Your task to perform on an android device: Go to Amazon Image 0: 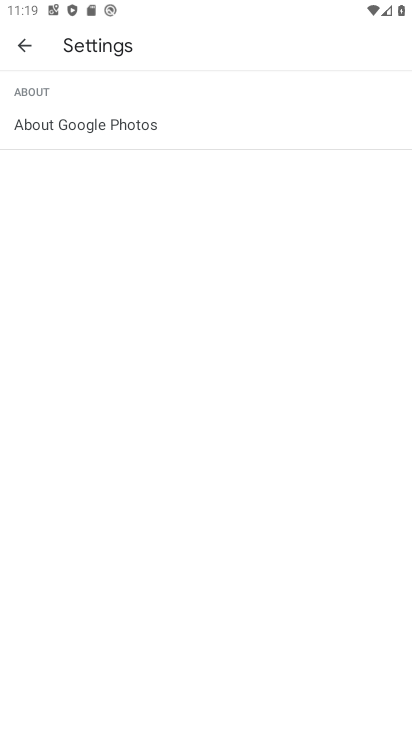
Step 0: click (23, 46)
Your task to perform on an android device: Go to Amazon Image 1: 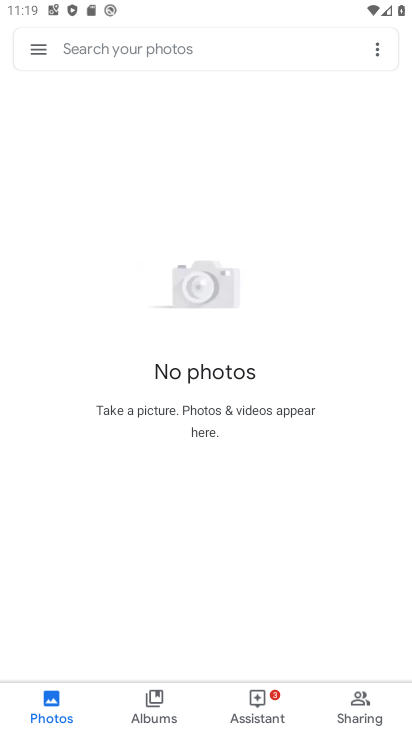
Step 1: press back button
Your task to perform on an android device: Go to Amazon Image 2: 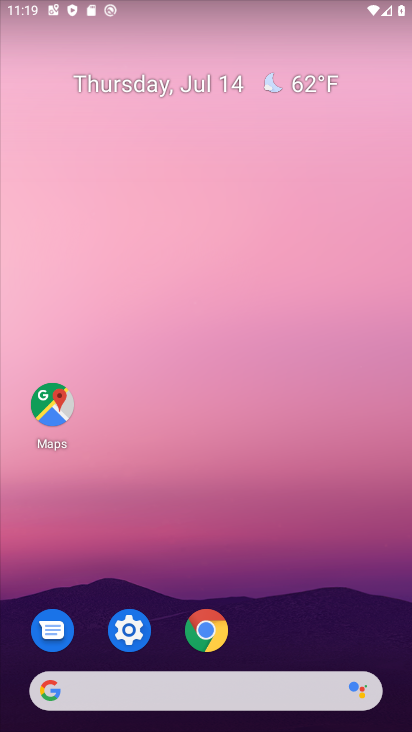
Step 2: drag from (265, 615) to (123, 105)
Your task to perform on an android device: Go to Amazon Image 3: 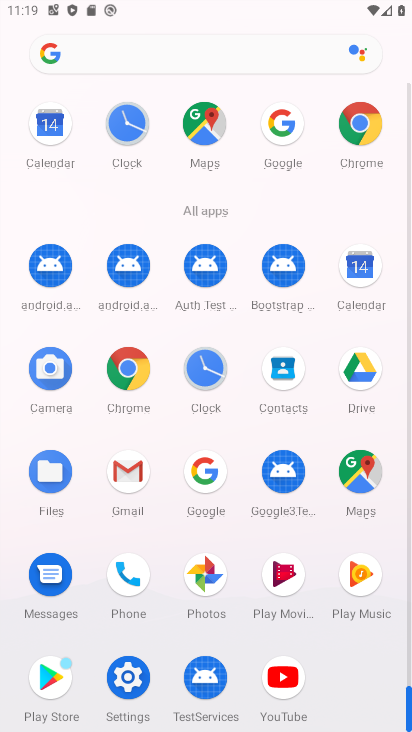
Step 3: click (358, 136)
Your task to perform on an android device: Go to Amazon Image 4: 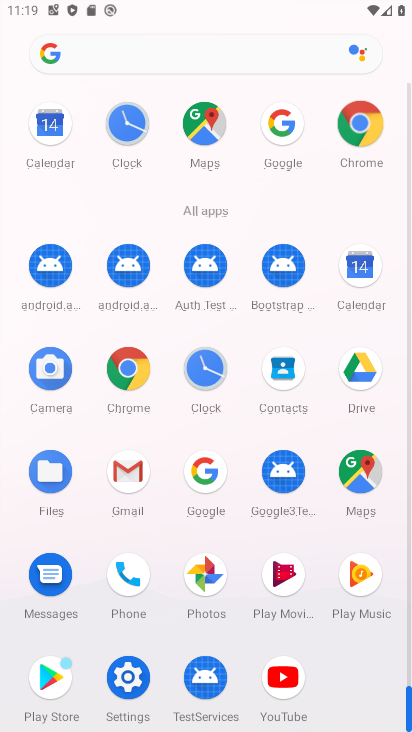
Step 4: click (350, 143)
Your task to perform on an android device: Go to Amazon Image 5: 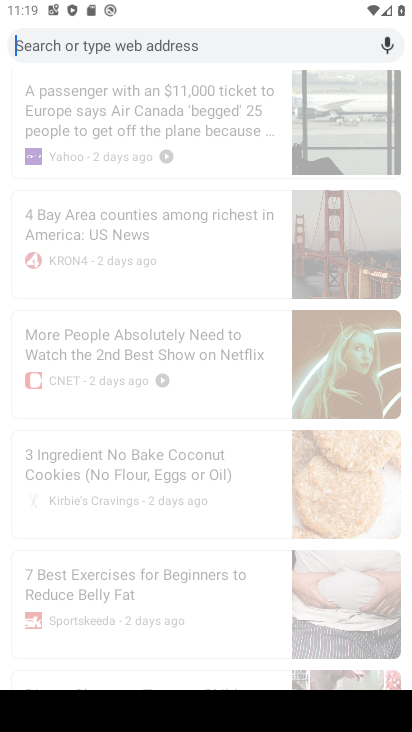
Step 5: press back button
Your task to perform on an android device: Go to Amazon Image 6: 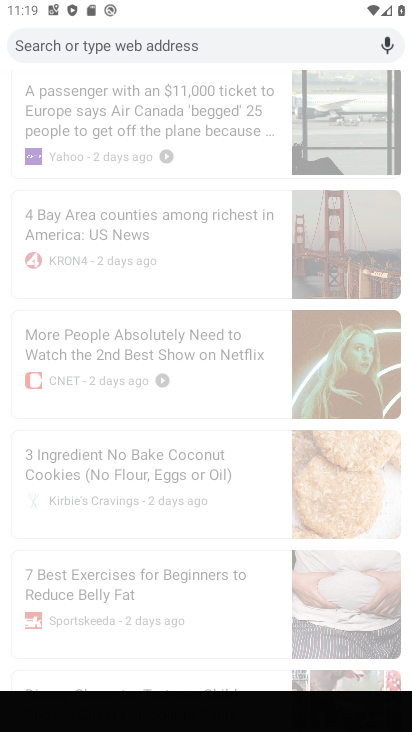
Step 6: press back button
Your task to perform on an android device: Go to Amazon Image 7: 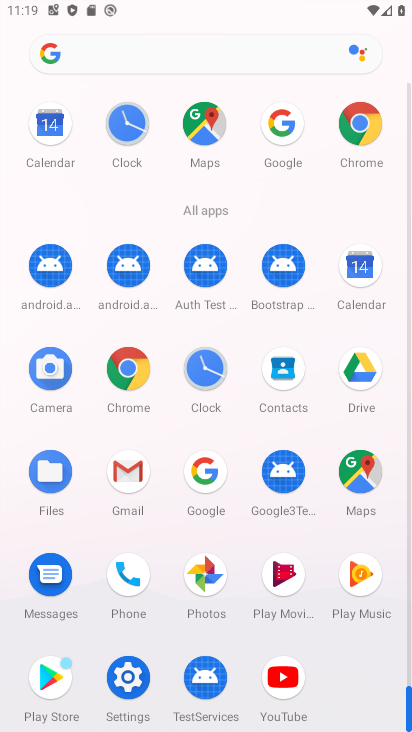
Step 7: drag from (355, 123) to (294, 364)
Your task to perform on an android device: Go to Amazon Image 8: 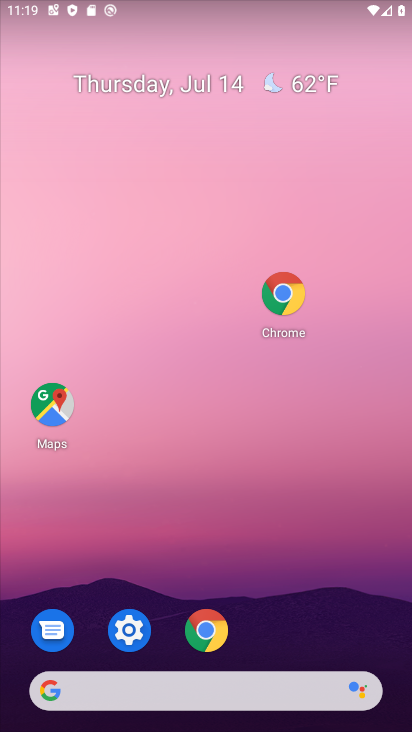
Step 8: click (277, 614)
Your task to perform on an android device: Go to Amazon Image 9: 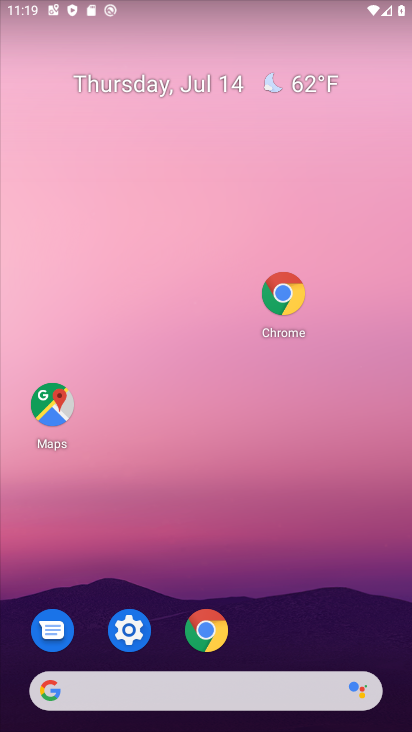
Step 9: drag from (304, 624) to (272, 74)
Your task to perform on an android device: Go to Amazon Image 10: 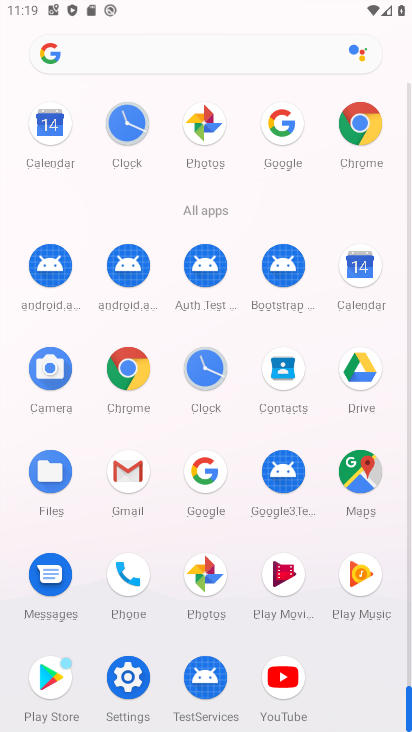
Step 10: click (357, 120)
Your task to perform on an android device: Go to Amazon Image 11: 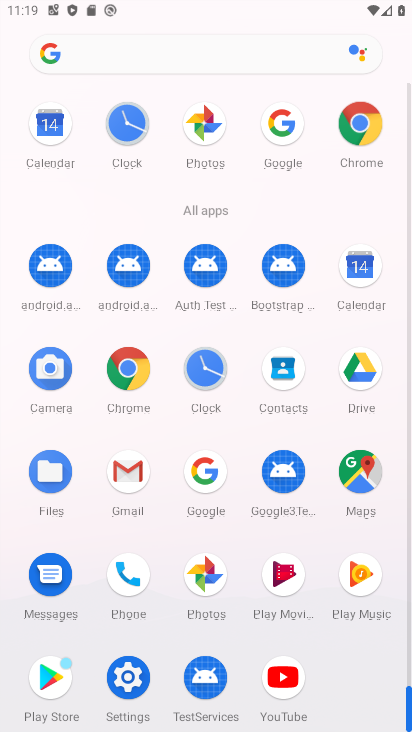
Step 11: click (357, 120)
Your task to perform on an android device: Go to Amazon Image 12: 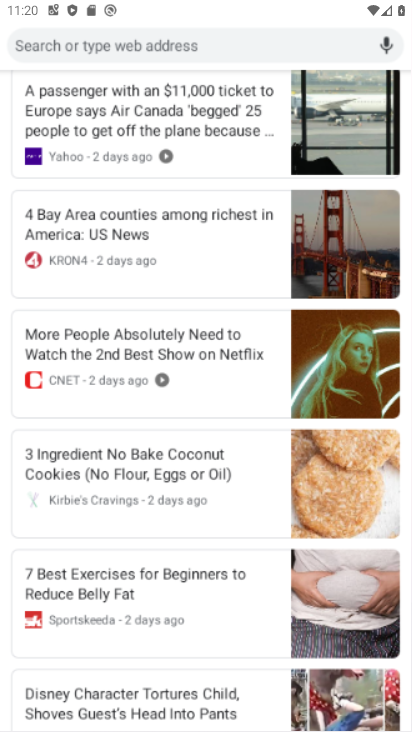
Step 12: click (357, 121)
Your task to perform on an android device: Go to Amazon Image 13: 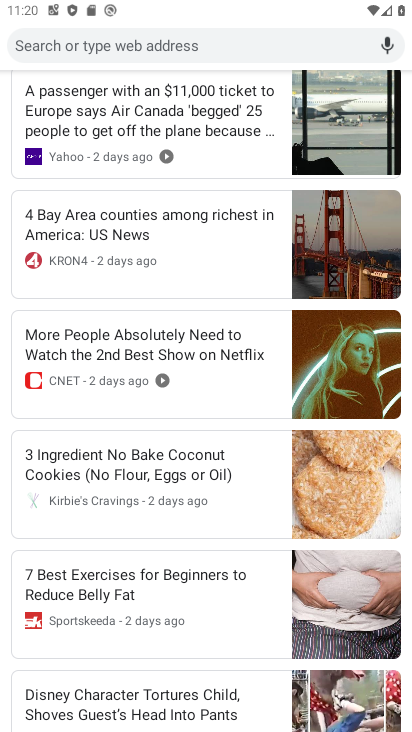
Step 13: drag from (187, 117) to (223, 504)
Your task to perform on an android device: Go to Amazon Image 14: 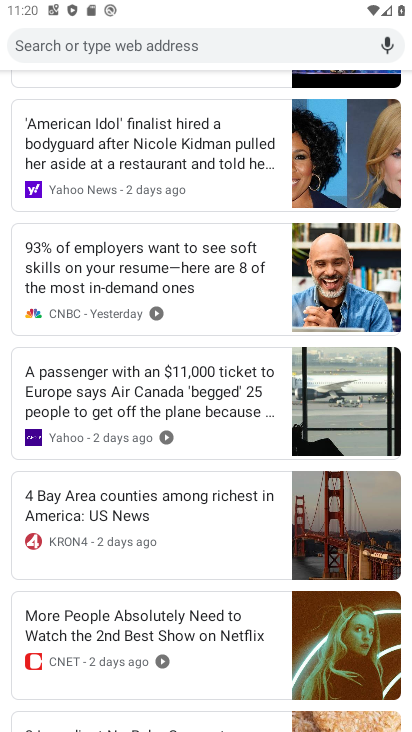
Step 14: drag from (147, 151) to (146, 618)
Your task to perform on an android device: Go to Amazon Image 15: 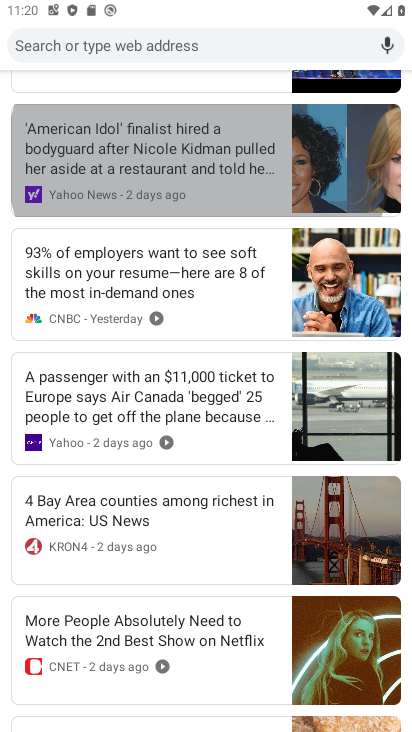
Step 15: drag from (141, 277) to (315, 534)
Your task to perform on an android device: Go to Amazon Image 16: 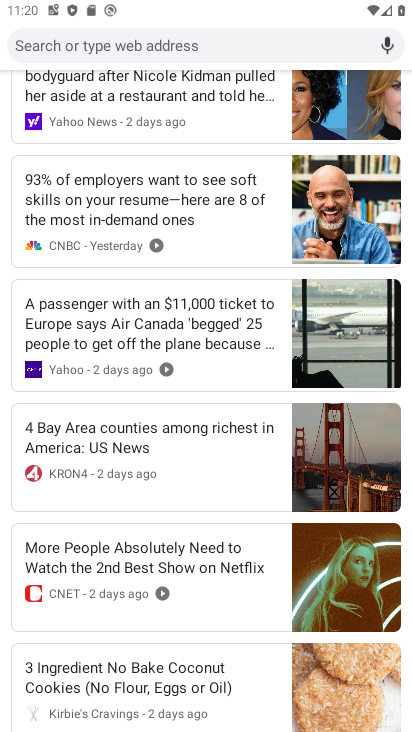
Step 16: drag from (271, 175) to (216, 514)
Your task to perform on an android device: Go to Amazon Image 17: 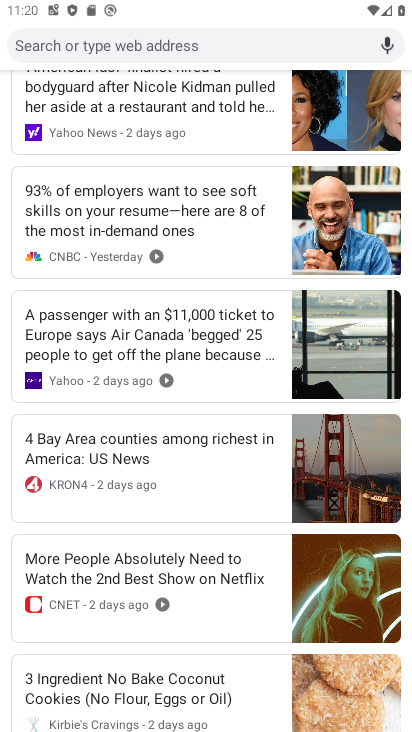
Step 17: drag from (269, 607) to (295, 713)
Your task to perform on an android device: Go to Amazon Image 18: 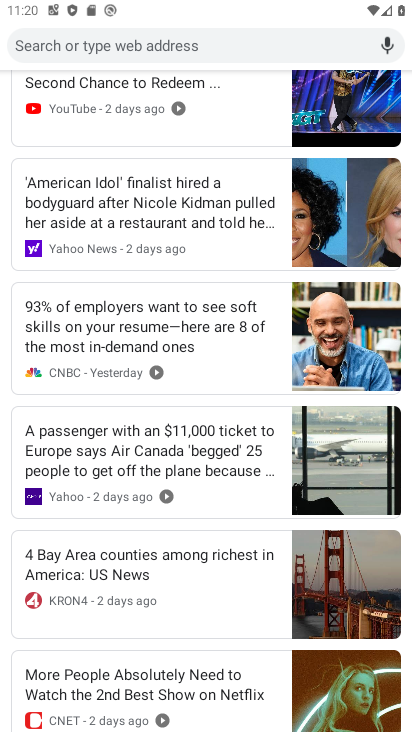
Step 18: drag from (200, 239) to (340, 729)
Your task to perform on an android device: Go to Amazon Image 19: 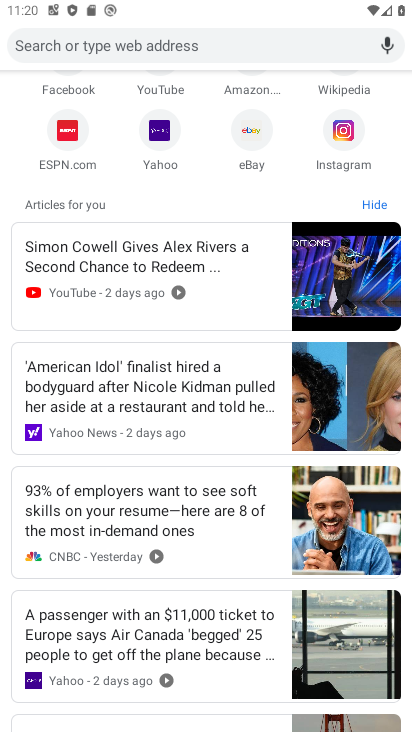
Step 19: drag from (104, 206) to (235, 630)
Your task to perform on an android device: Go to Amazon Image 20: 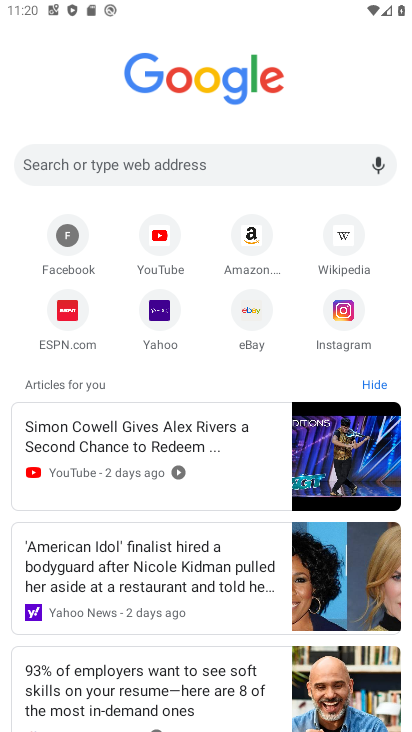
Step 20: drag from (180, 143) to (248, 656)
Your task to perform on an android device: Go to Amazon Image 21: 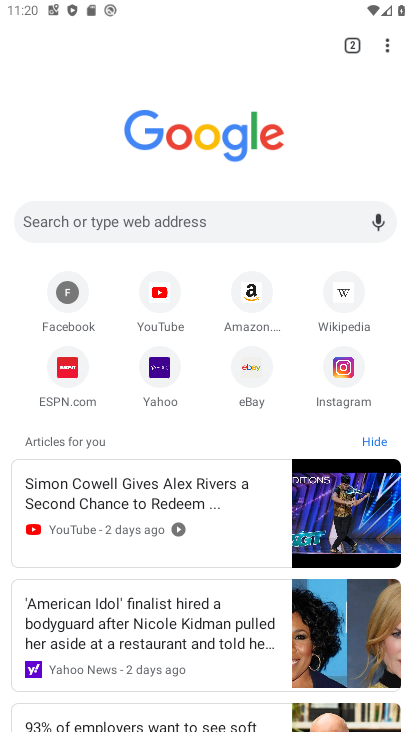
Step 21: click (246, 294)
Your task to perform on an android device: Go to Amazon Image 22: 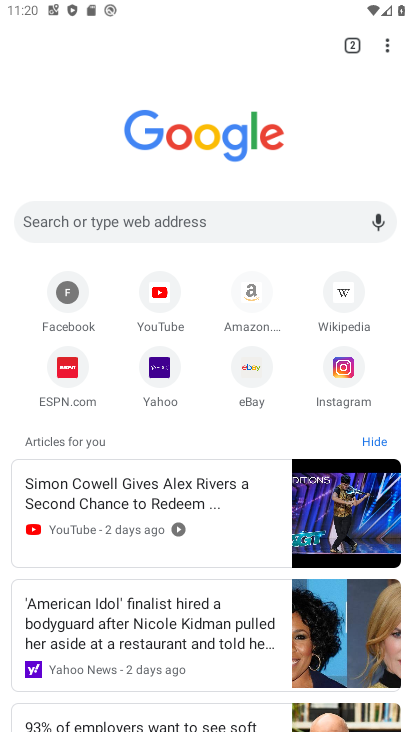
Step 22: click (252, 291)
Your task to perform on an android device: Go to Amazon Image 23: 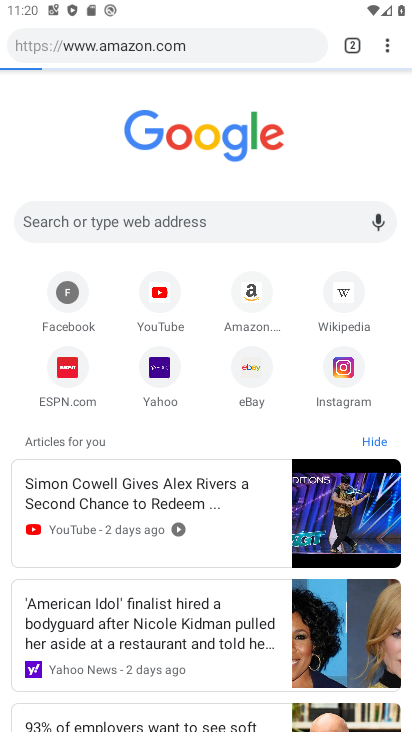
Step 23: click (253, 289)
Your task to perform on an android device: Go to Amazon Image 24: 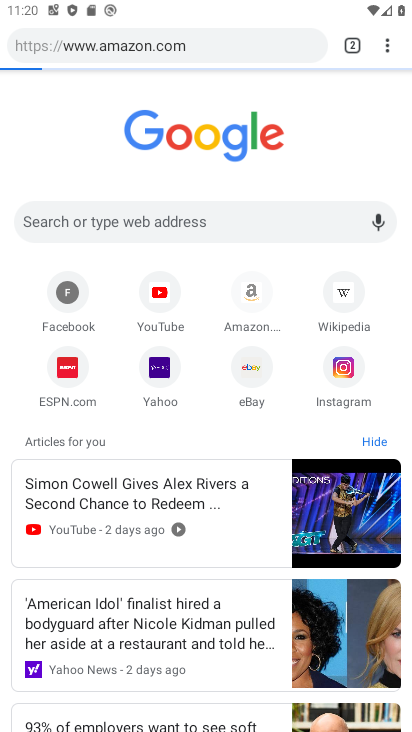
Step 24: click (253, 289)
Your task to perform on an android device: Go to Amazon Image 25: 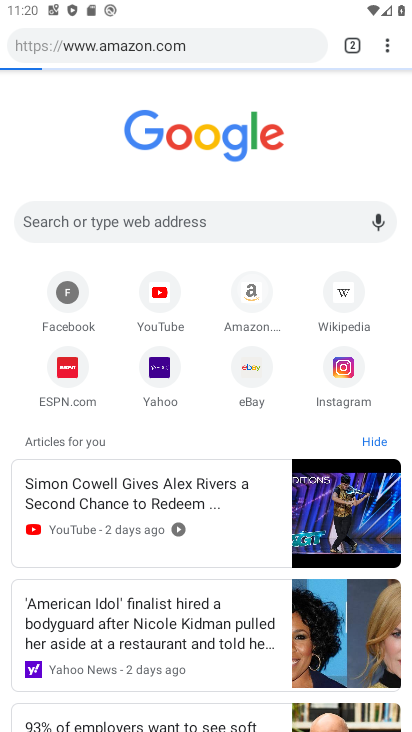
Step 25: click (253, 294)
Your task to perform on an android device: Go to Amazon Image 26: 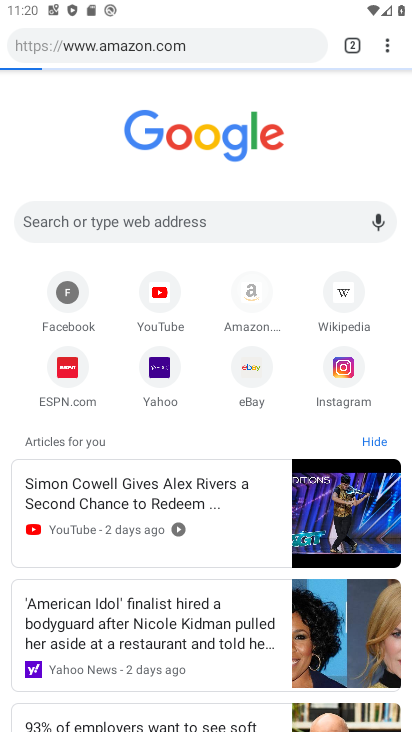
Step 26: click (253, 294)
Your task to perform on an android device: Go to Amazon Image 27: 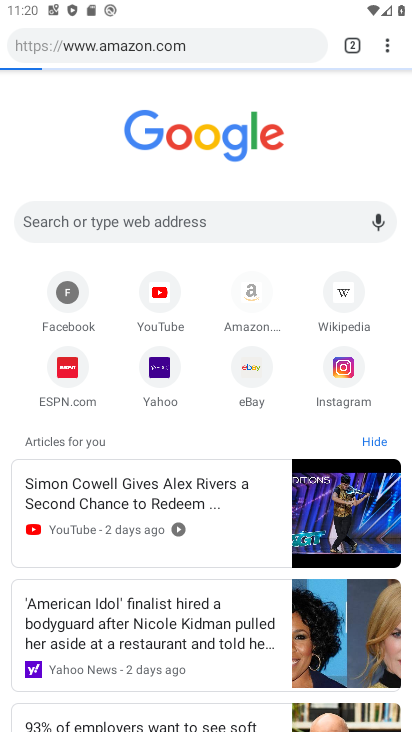
Step 27: click (253, 296)
Your task to perform on an android device: Go to Amazon Image 28: 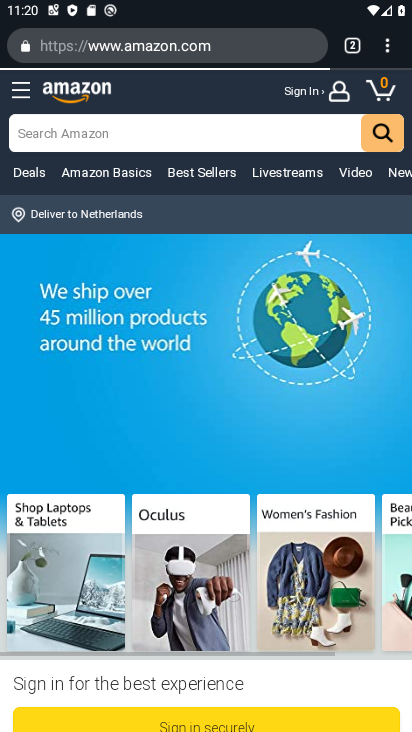
Step 28: task complete